Your task to perform on an android device: open chrome and create a bookmark for the current page Image 0: 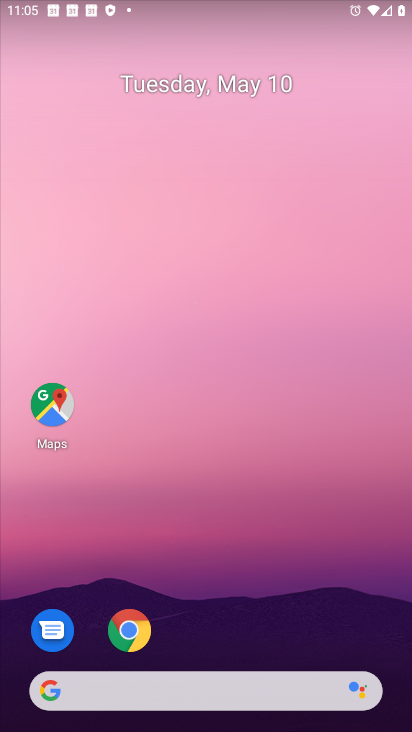
Step 0: click (119, 631)
Your task to perform on an android device: open chrome and create a bookmark for the current page Image 1: 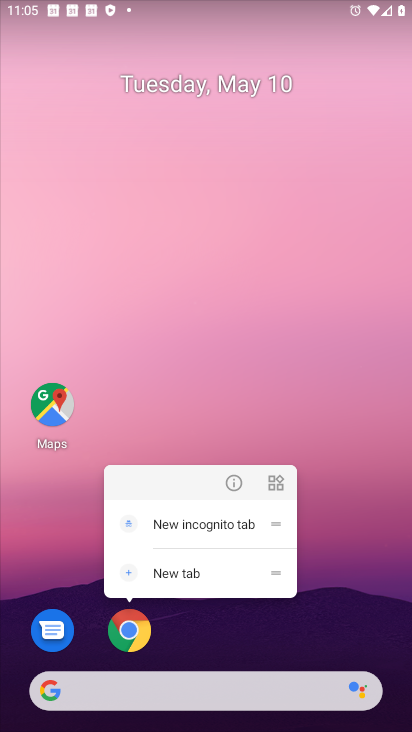
Step 1: click (119, 631)
Your task to perform on an android device: open chrome and create a bookmark for the current page Image 2: 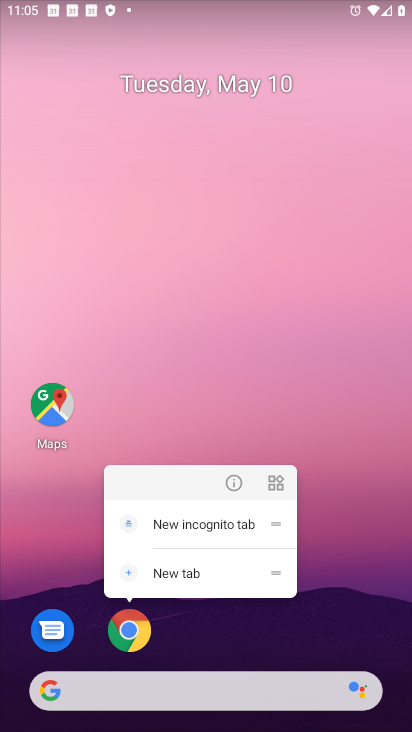
Step 2: click (119, 631)
Your task to perform on an android device: open chrome and create a bookmark for the current page Image 3: 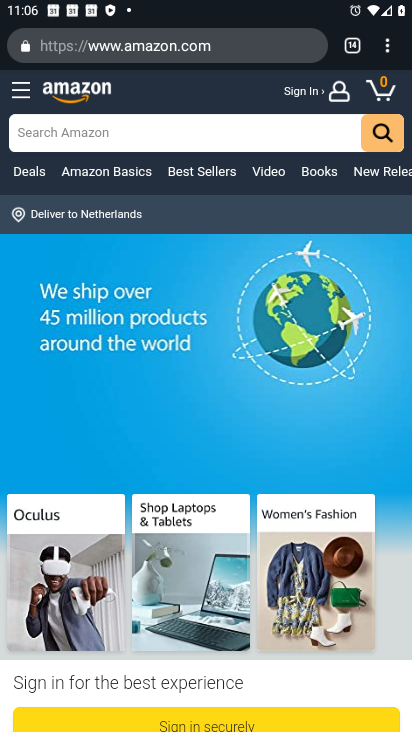
Step 3: click (389, 44)
Your task to perform on an android device: open chrome and create a bookmark for the current page Image 4: 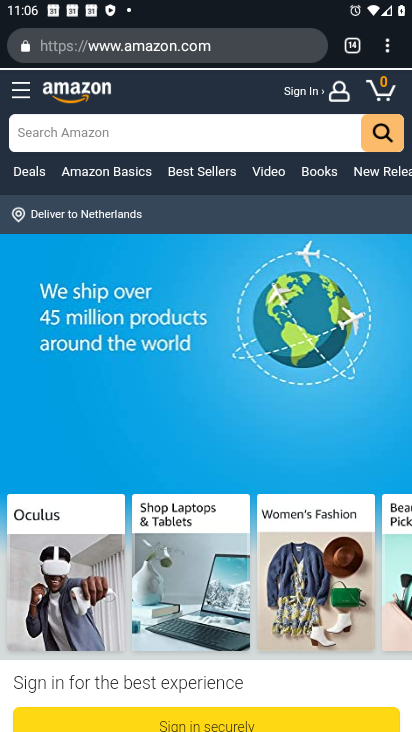
Step 4: click (394, 48)
Your task to perform on an android device: open chrome and create a bookmark for the current page Image 5: 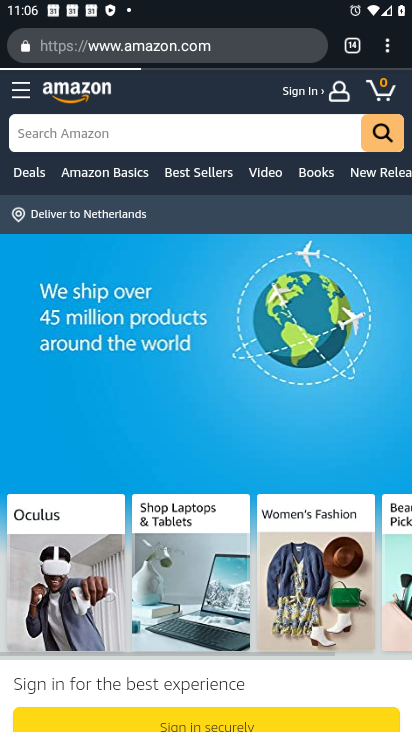
Step 5: click (390, 45)
Your task to perform on an android device: open chrome and create a bookmark for the current page Image 6: 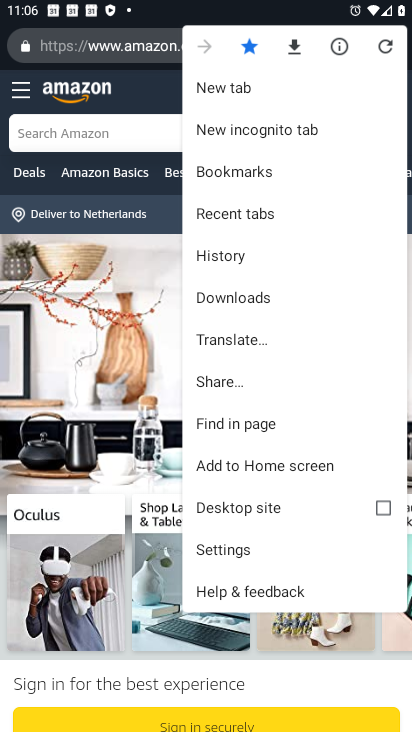
Step 6: task complete